Your task to perform on an android device: Go to wifi settings Image 0: 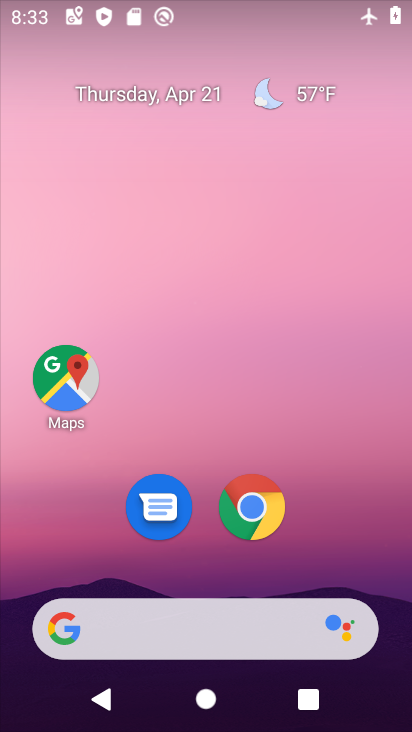
Step 0: drag from (268, 5) to (307, 441)
Your task to perform on an android device: Go to wifi settings Image 1: 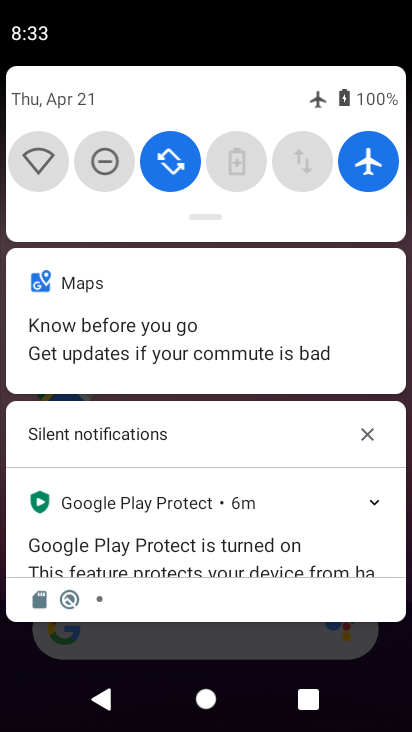
Step 1: click (32, 167)
Your task to perform on an android device: Go to wifi settings Image 2: 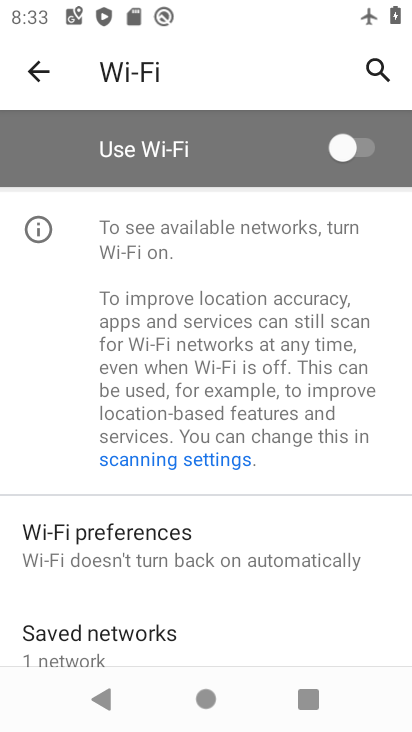
Step 2: task complete